Your task to perform on an android device: Do I have any events this weekend? Image 0: 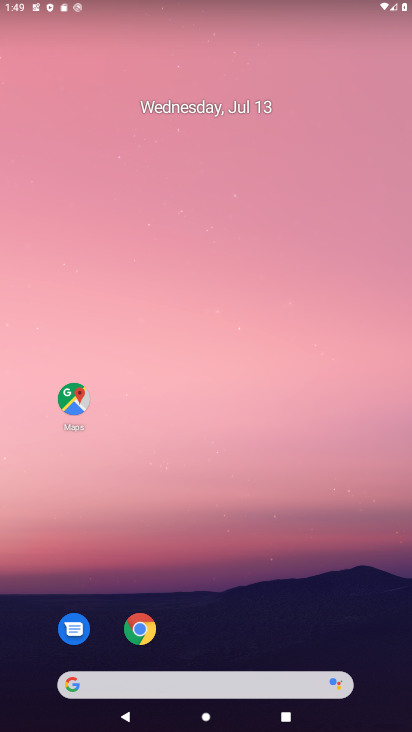
Step 0: drag from (217, 682) to (268, 325)
Your task to perform on an android device: Do I have any events this weekend? Image 1: 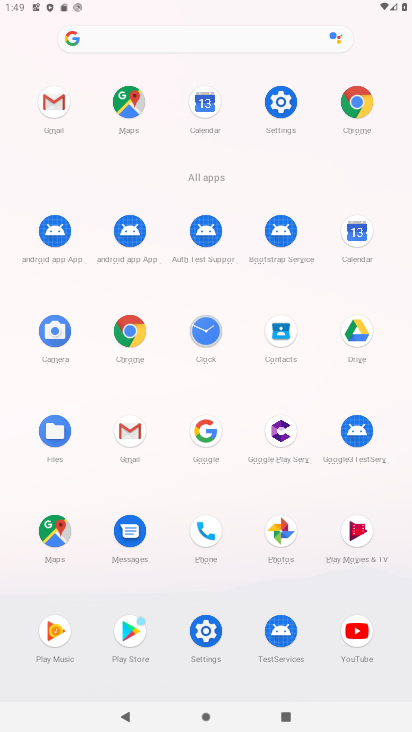
Step 1: click (354, 233)
Your task to perform on an android device: Do I have any events this weekend? Image 2: 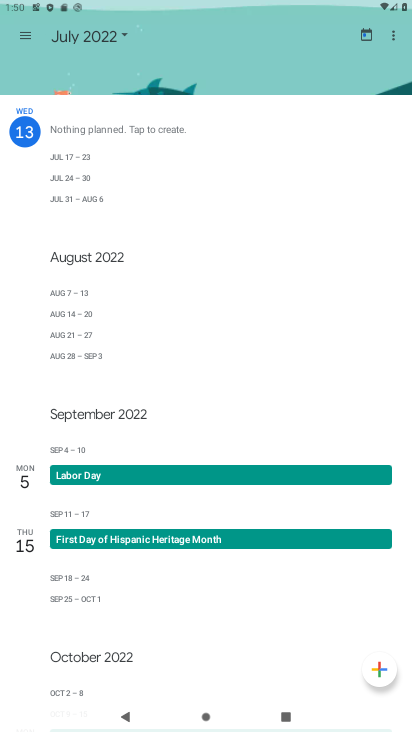
Step 2: click (116, 35)
Your task to perform on an android device: Do I have any events this weekend? Image 3: 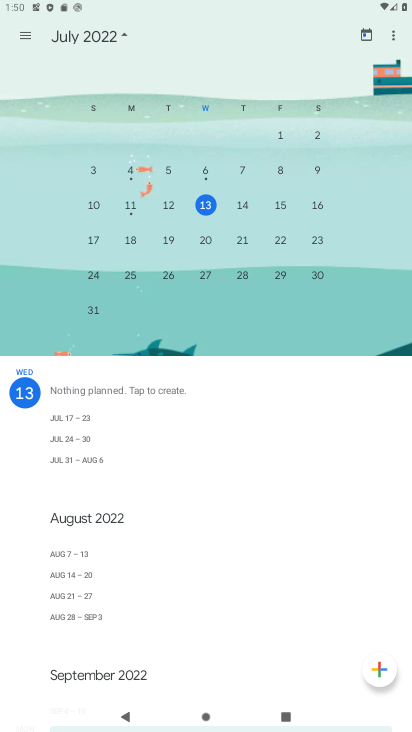
Step 3: click (312, 206)
Your task to perform on an android device: Do I have any events this weekend? Image 4: 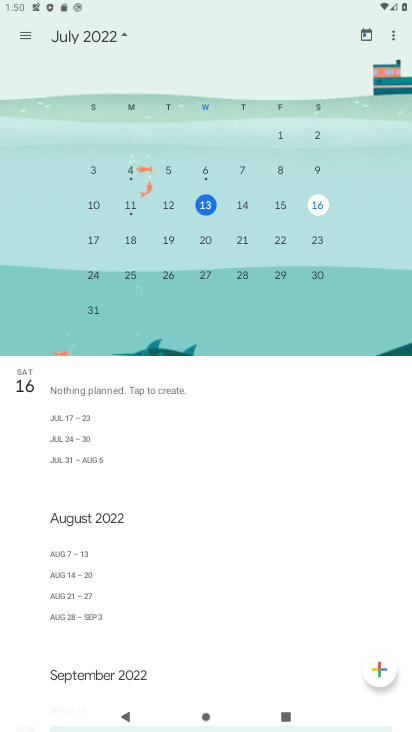
Step 4: click (26, 33)
Your task to perform on an android device: Do I have any events this weekend? Image 5: 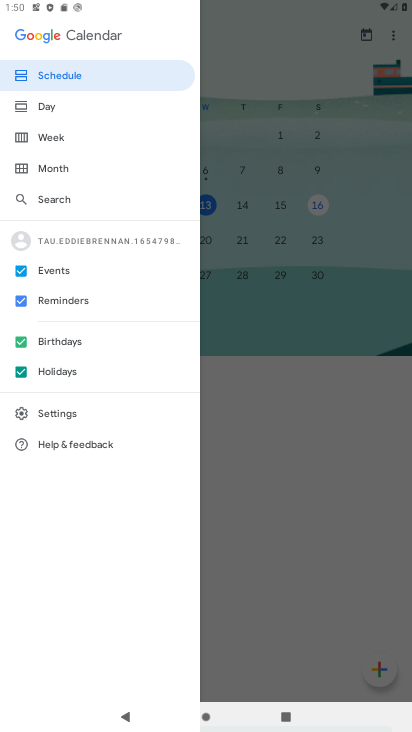
Step 5: click (59, 136)
Your task to perform on an android device: Do I have any events this weekend? Image 6: 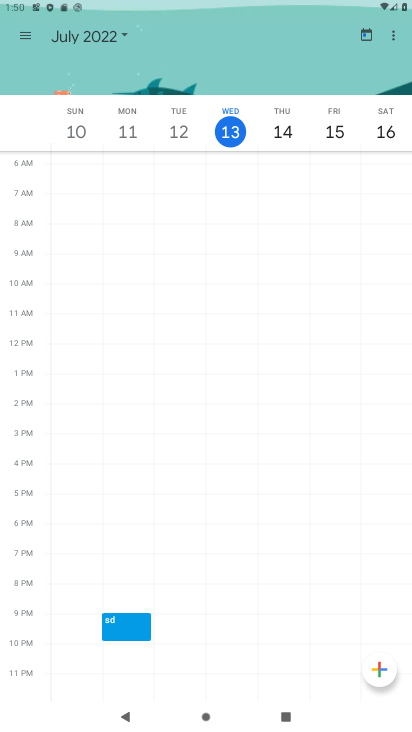
Step 6: task complete